Your task to perform on an android device: toggle improve location accuracy Image 0: 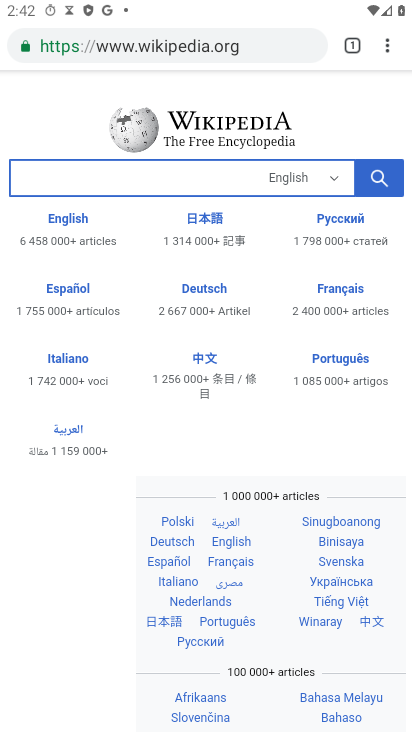
Step 0: press home button
Your task to perform on an android device: toggle improve location accuracy Image 1: 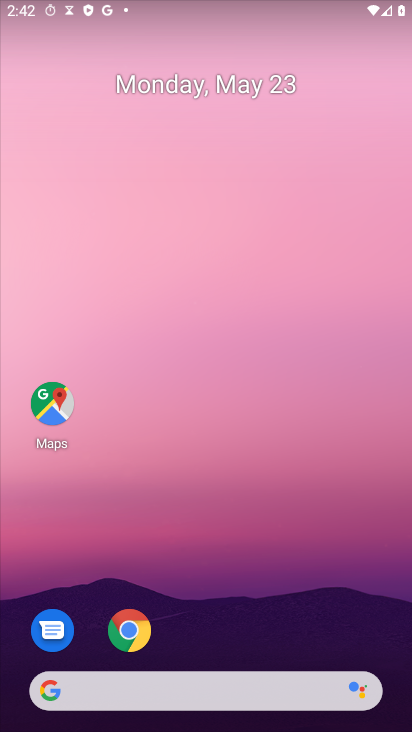
Step 1: drag from (311, 515) to (273, 20)
Your task to perform on an android device: toggle improve location accuracy Image 2: 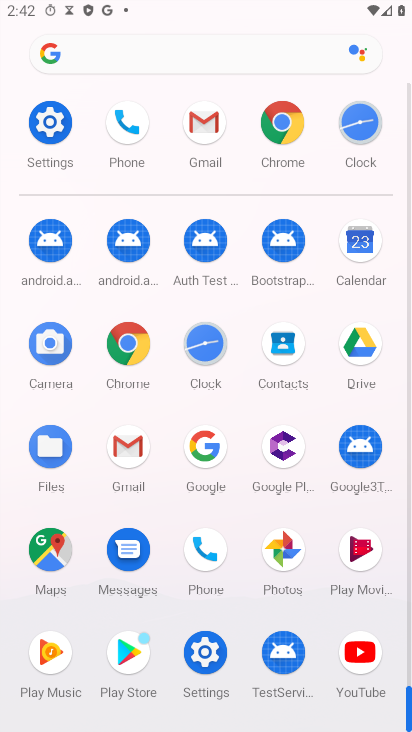
Step 2: click (46, 140)
Your task to perform on an android device: toggle improve location accuracy Image 3: 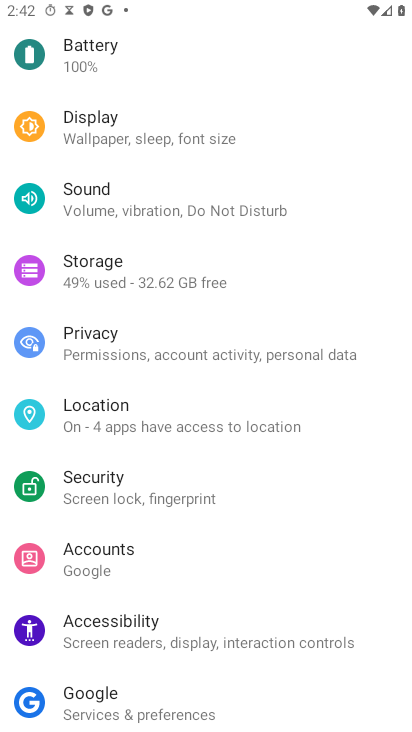
Step 3: click (123, 418)
Your task to perform on an android device: toggle improve location accuracy Image 4: 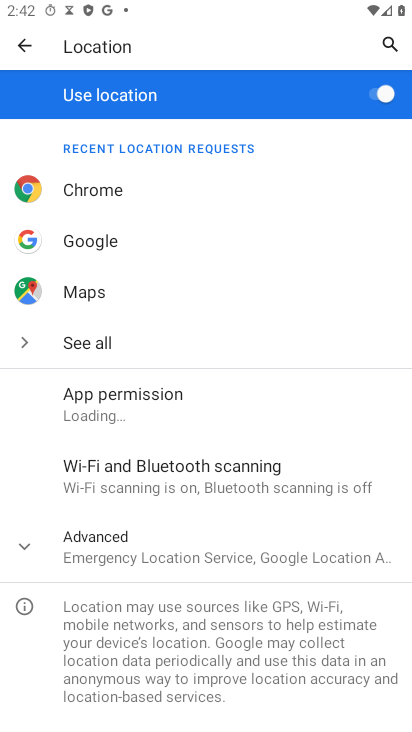
Step 4: drag from (168, 398) to (138, 187)
Your task to perform on an android device: toggle improve location accuracy Image 5: 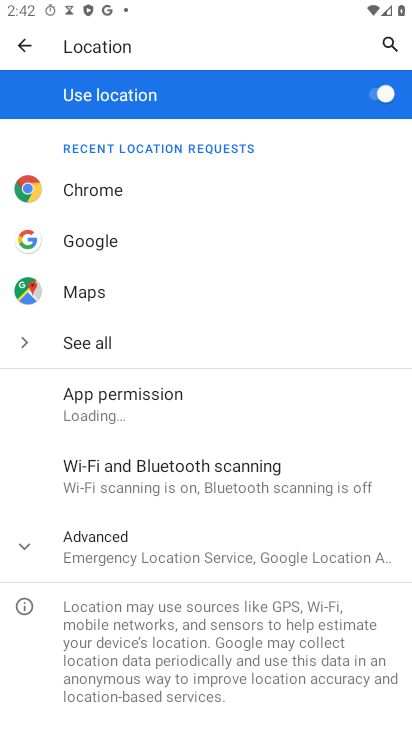
Step 5: click (170, 560)
Your task to perform on an android device: toggle improve location accuracy Image 6: 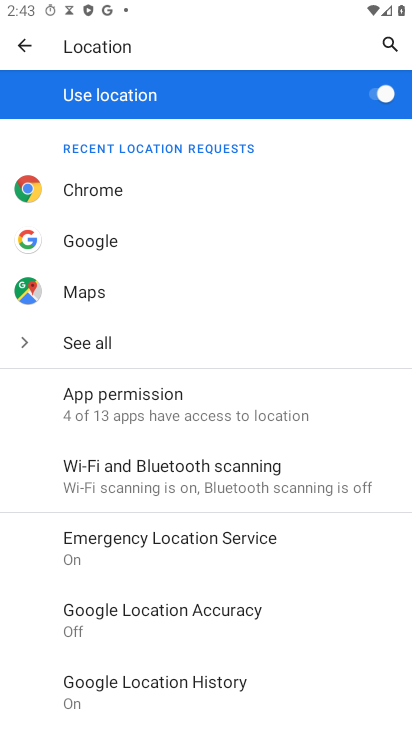
Step 6: drag from (209, 567) to (147, 176)
Your task to perform on an android device: toggle improve location accuracy Image 7: 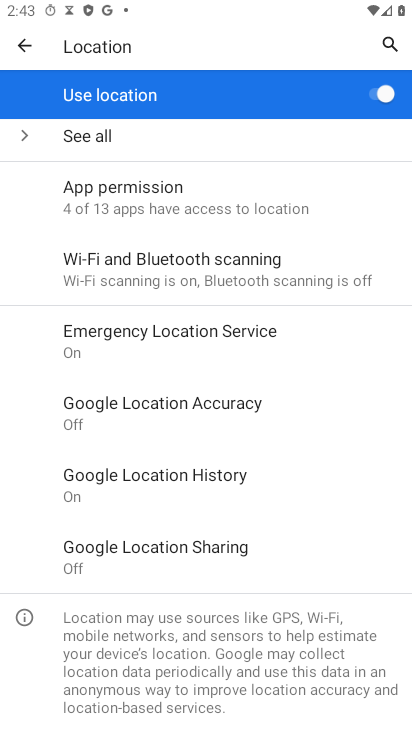
Step 7: click (137, 411)
Your task to perform on an android device: toggle improve location accuracy Image 8: 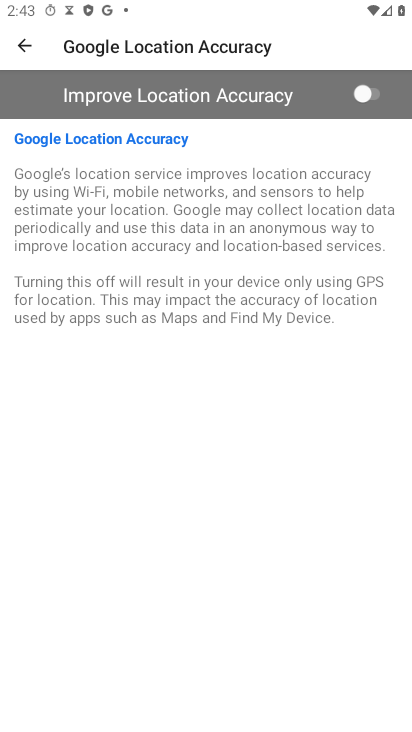
Step 8: click (365, 100)
Your task to perform on an android device: toggle improve location accuracy Image 9: 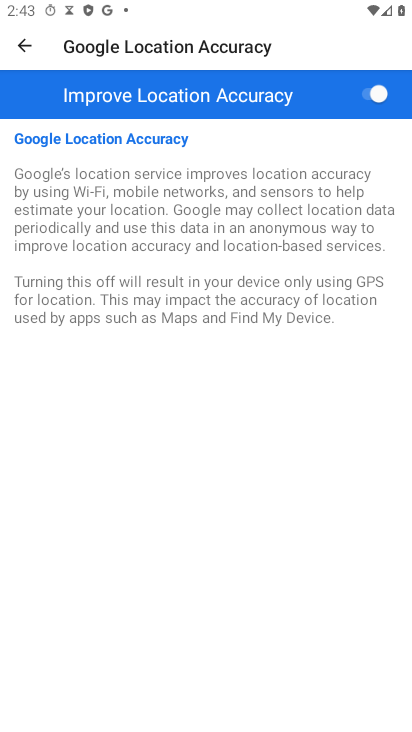
Step 9: task complete